Your task to perform on an android device: turn on location history Image 0: 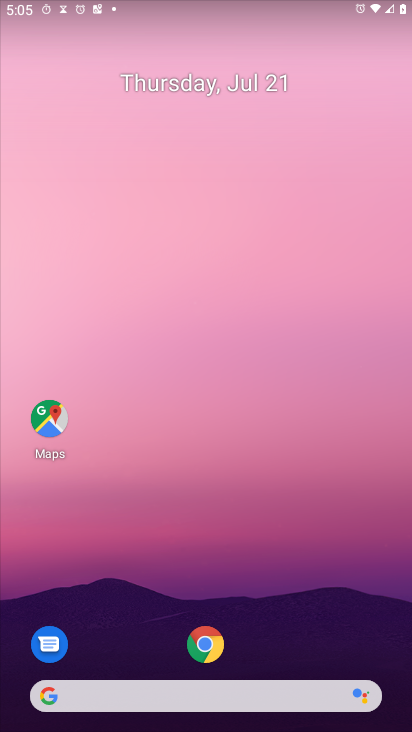
Step 0: press home button
Your task to perform on an android device: turn on location history Image 1: 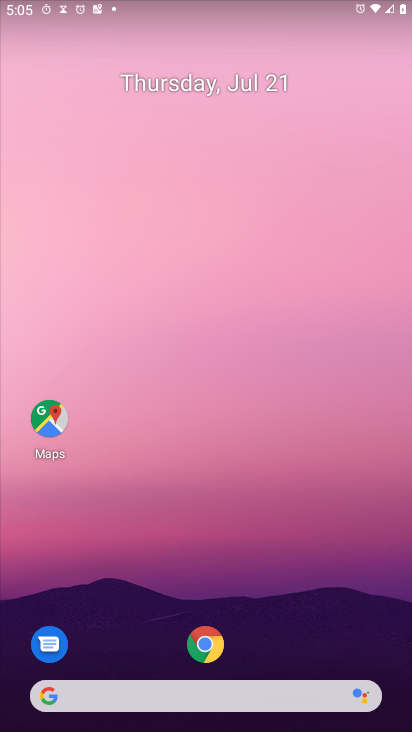
Step 1: drag from (303, 597) to (252, 66)
Your task to perform on an android device: turn on location history Image 2: 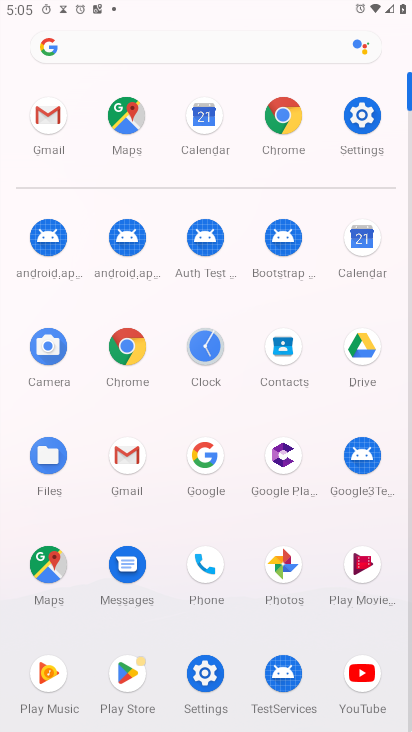
Step 2: click (363, 110)
Your task to perform on an android device: turn on location history Image 3: 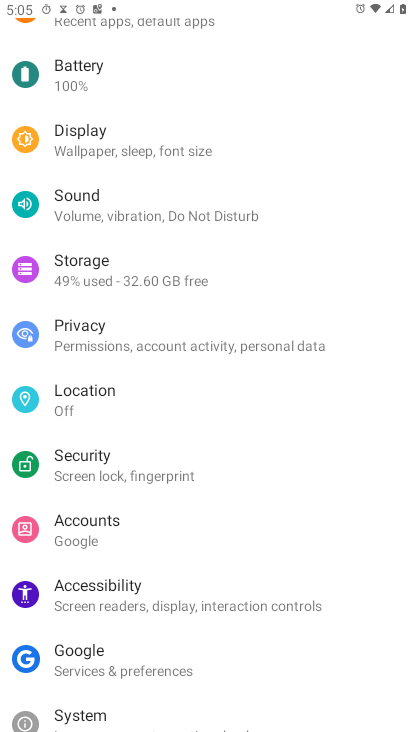
Step 3: click (94, 397)
Your task to perform on an android device: turn on location history Image 4: 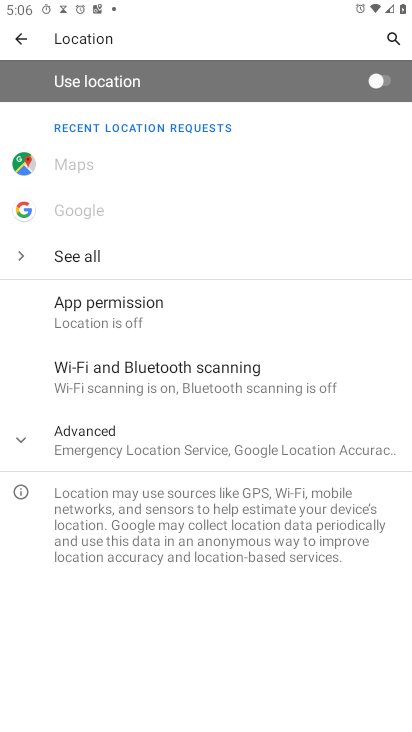
Step 4: click (15, 441)
Your task to perform on an android device: turn on location history Image 5: 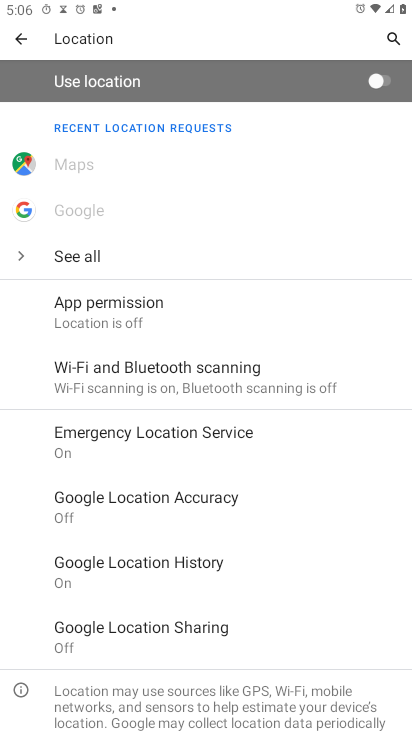
Step 5: click (166, 568)
Your task to perform on an android device: turn on location history Image 6: 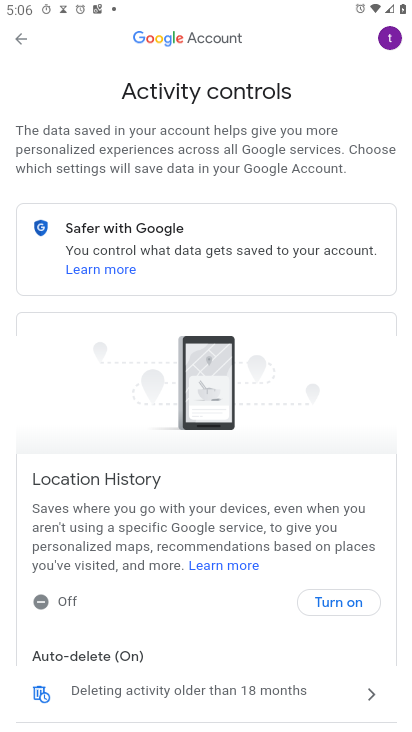
Step 6: task complete